Your task to perform on an android device: check out phone information Image 0: 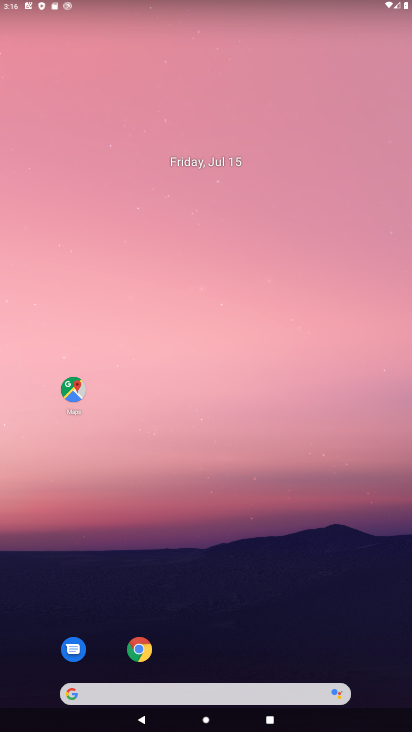
Step 0: drag from (227, 569) to (217, 1)
Your task to perform on an android device: check out phone information Image 1: 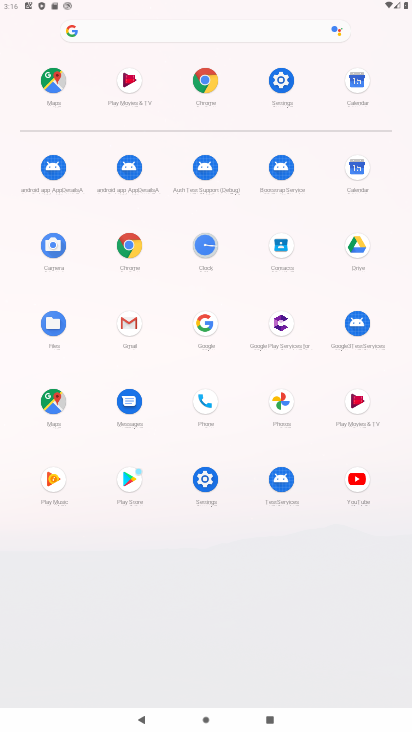
Step 1: click (208, 400)
Your task to perform on an android device: check out phone information Image 2: 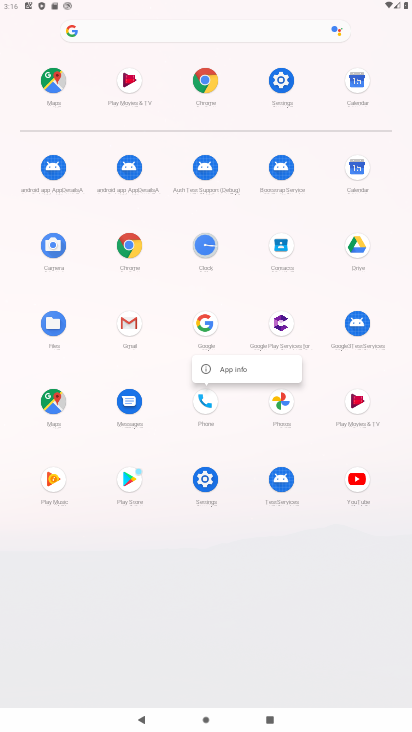
Step 2: click (254, 376)
Your task to perform on an android device: check out phone information Image 3: 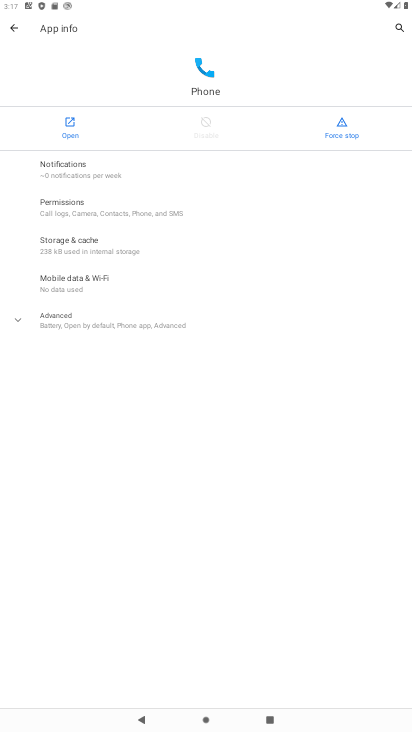
Step 3: click (113, 322)
Your task to perform on an android device: check out phone information Image 4: 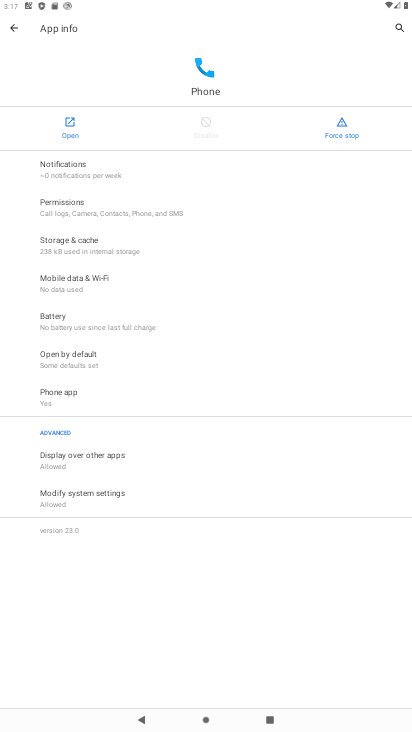
Step 4: task complete